Your task to perform on an android device: check out phone information Image 0: 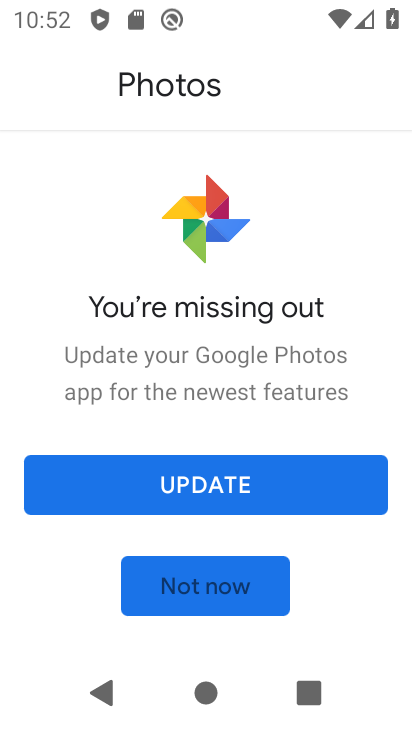
Step 0: press home button
Your task to perform on an android device: check out phone information Image 1: 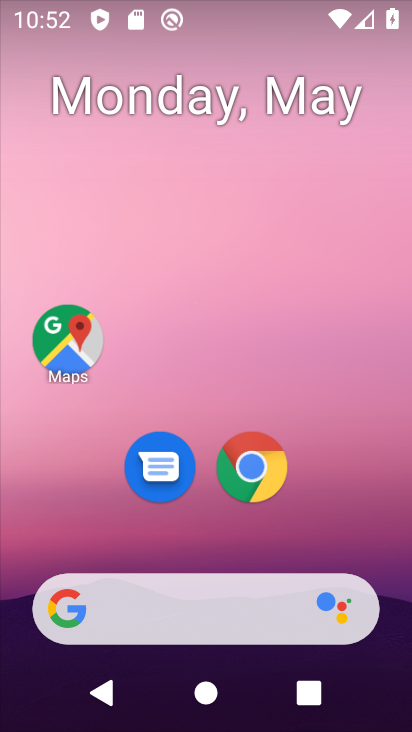
Step 1: drag from (318, 543) to (270, 80)
Your task to perform on an android device: check out phone information Image 2: 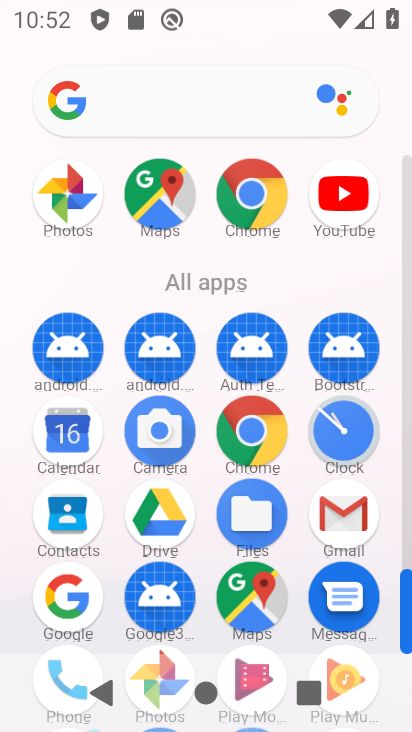
Step 2: click (409, 700)
Your task to perform on an android device: check out phone information Image 3: 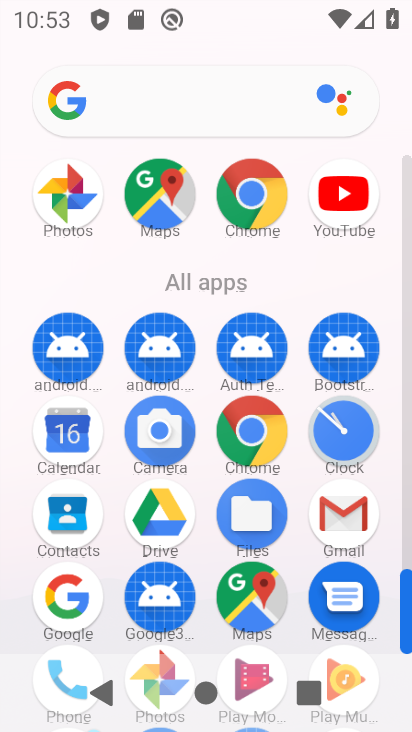
Step 3: click (409, 700)
Your task to perform on an android device: check out phone information Image 4: 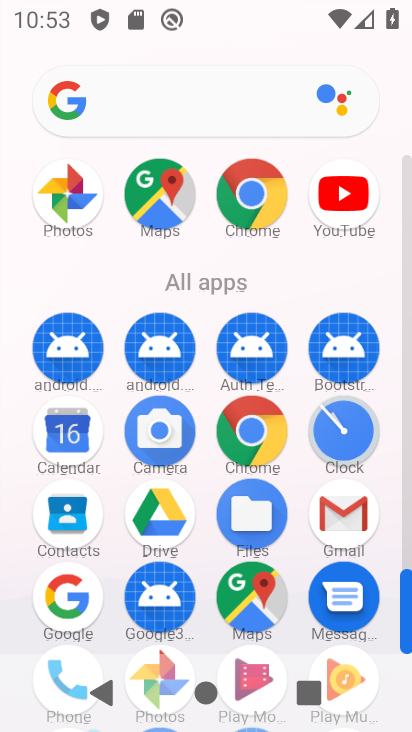
Step 4: drag from (407, 604) to (406, 500)
Your task to perform on an android device: check out phone information Image 5: 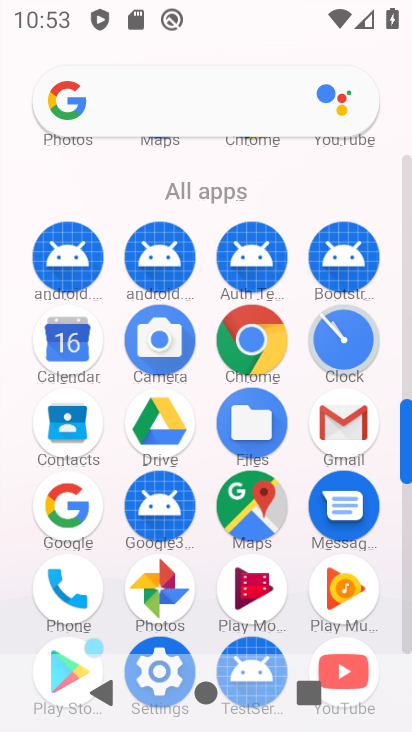
Step 5: click (152, 643)
Your task to perform on an android device: check out phone information Image 6: 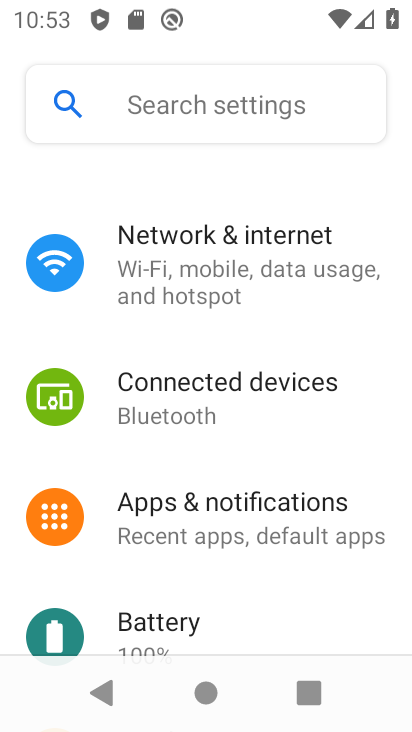
Step 6: task complete